Your task to perform on an android device: Toggle the flashlight Image 0: 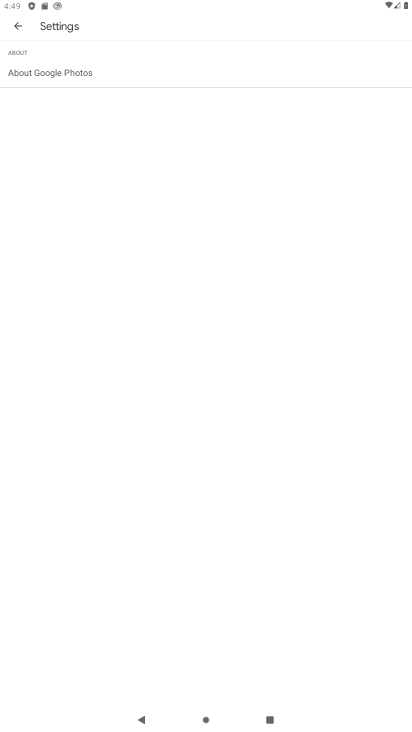
Step 0: press home button
Your task to perform on an android device: Toggle the flashlight Image 1: 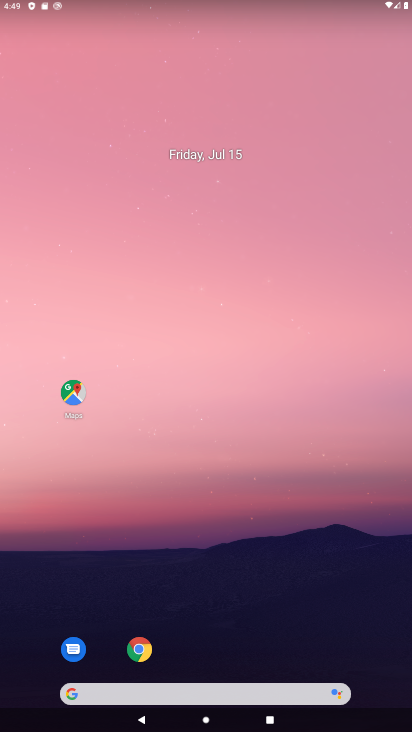
Step 1: drag from (186, 693) to (235, 134)
Your task to perform on an android device: Toggle the flashlight Image 2: 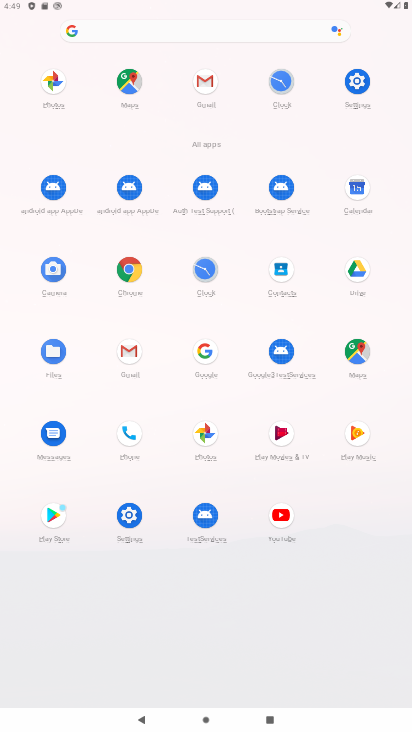
Step 2: click (355, 83)
Your task to perform on an android device: Toggle the flashlight Image 3: 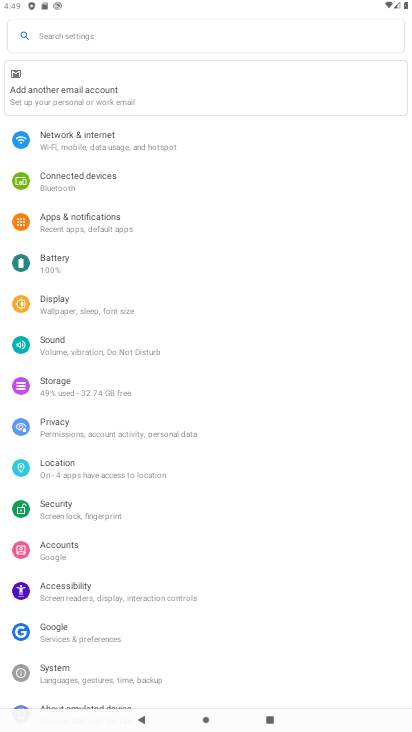
Step 3: click (82, 305)
Your task to perform on an android device: Toggle the flashlight Image 4: 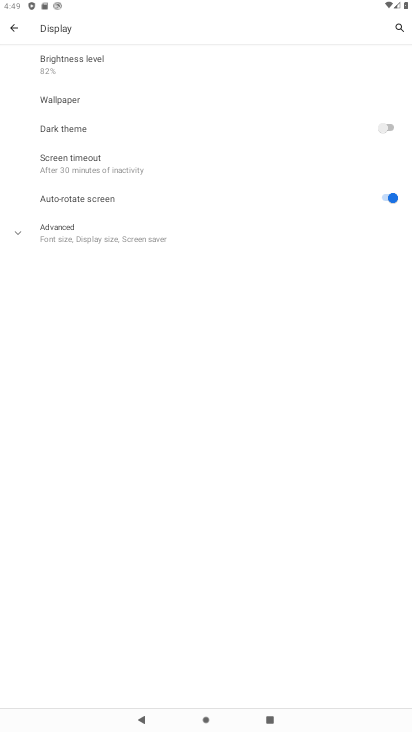
Step 4: click (87, 243)
Your task to perform on an android device: Toggle the flashlight Image 5: 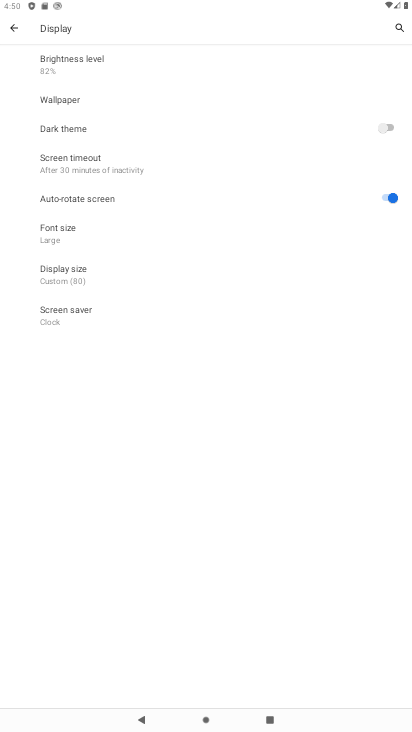
Step 5: task complete